Your task to perform on an android device: turn on priority inbox in the gmail app Image 0: 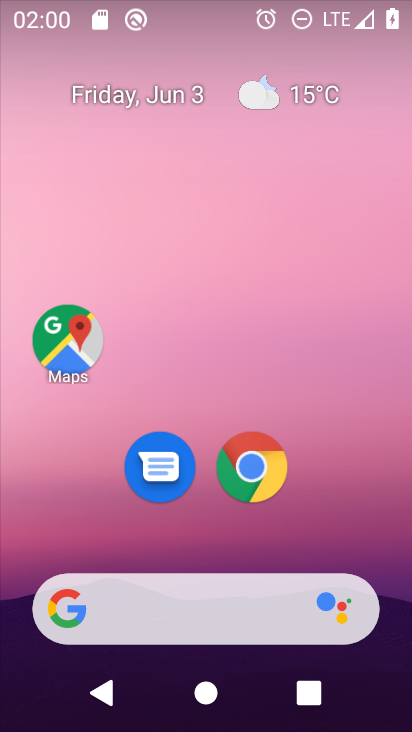
Step 0: drag from (400, 631) to (300, 64)
Your task to perform on an android device: turn on priority inbox in the gmail app Image 1: 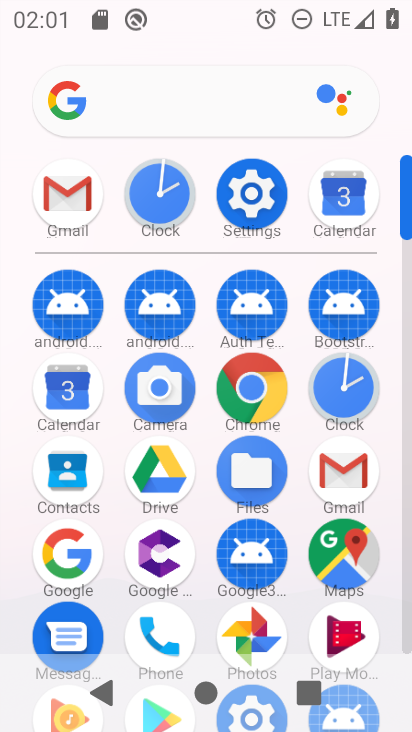
Step 1: click (405, 619)
Your task to perform on an android device: turn on priority inbox in the gmail app Image 2: 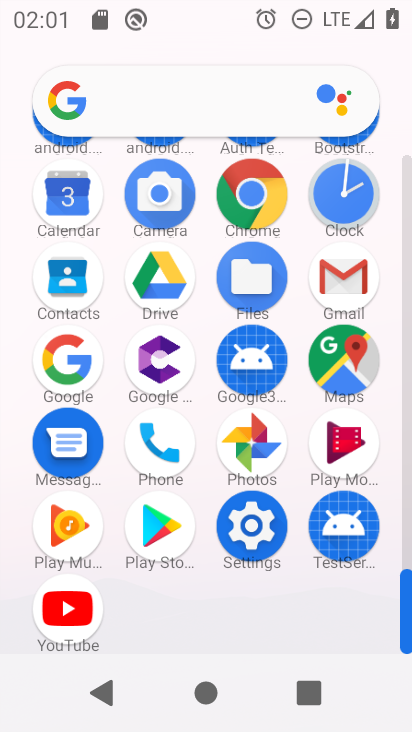
Step 2: click (341, 274)
Your task to perform on an android device: turn on priority inbox in the gmail app Image 3: 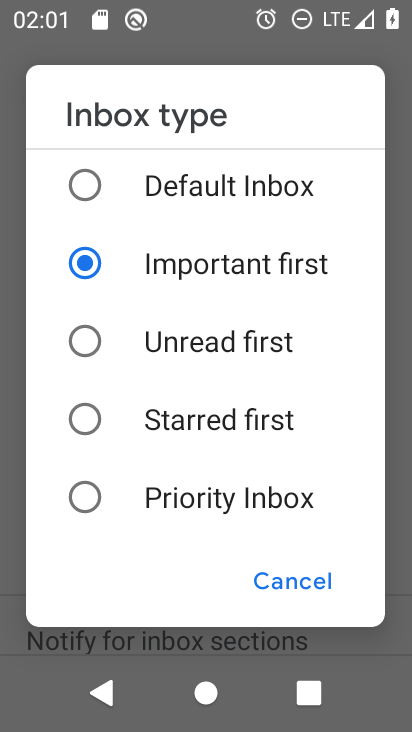
Step 3: click (77, 495)
Your task to perform on an android device: turn on priority inbox in the gmail app Image 4: 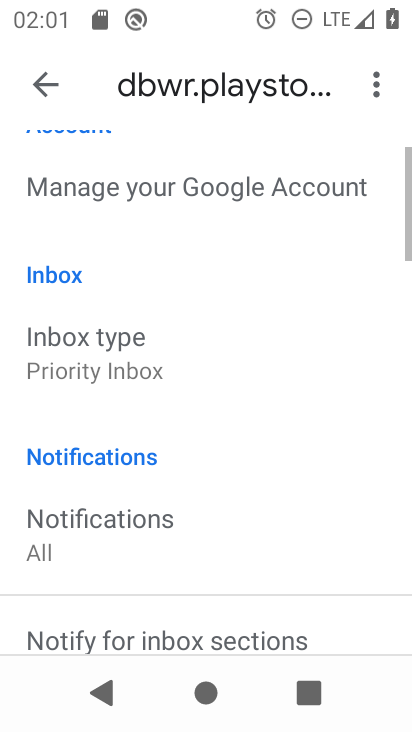
Step 4: task complete